Your task to perform on an android device: turn on translation in the chrome app Image 0: 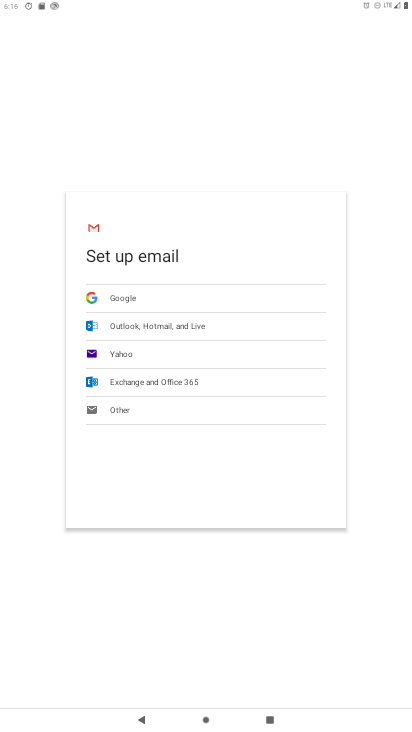
Step 0: press home button
Your task to perform on an android device: turn on translation in the chrome app Image 1: 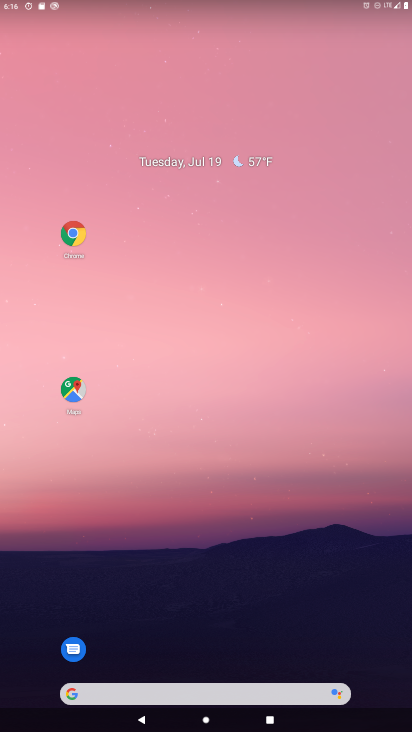
Step 1: click (69, 232)
Your task to perform on an android device: turn on translation in the chrome app Image 2: 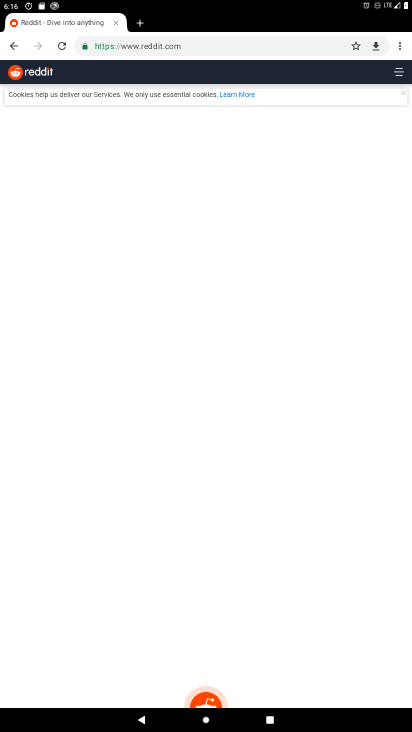
Step 2: click (400, 48)
Your task to perform on an android device: turn on translation in the chrome app Image 3: 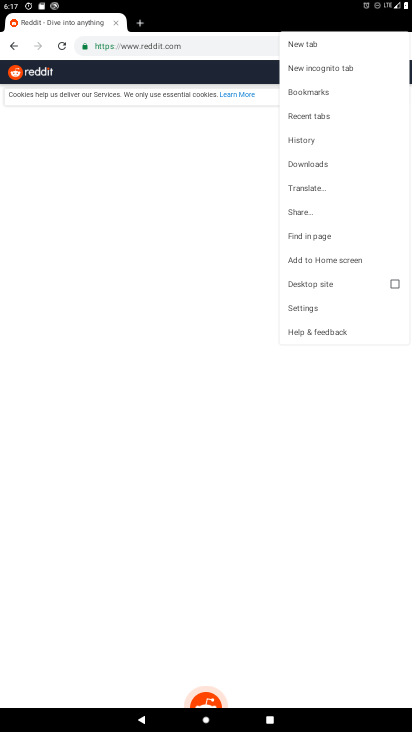
Step 3: click (306, 309)
Your task to perform on an android device: turn on translation in the chrome app Image 4: 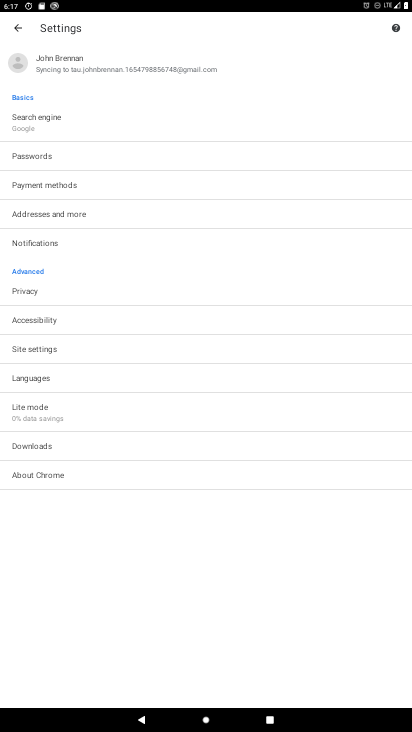
Step 4: click (35, 376)
Your task to perform on an android device: turn on translation in the chrome app Image 5: 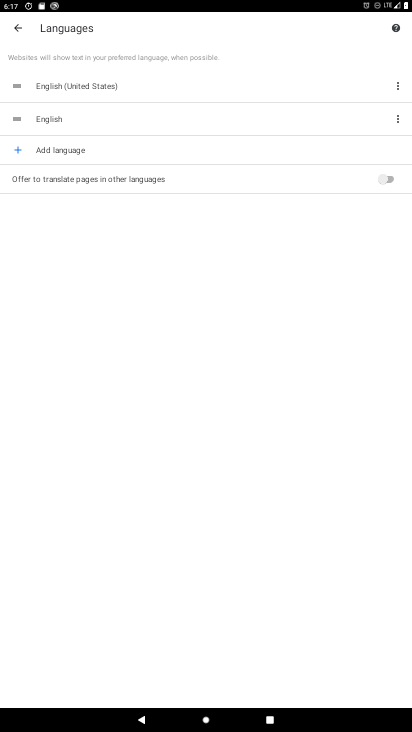
Step 5: click (393, 179)
Your task to perform on an android device: turn on translation in the chrome app Image 6: 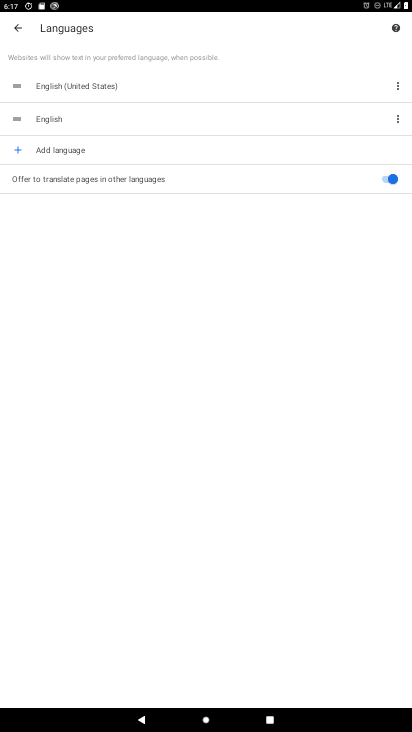
Step 6: task complete